Your task to perform on an android device: Open location settings Image 0: 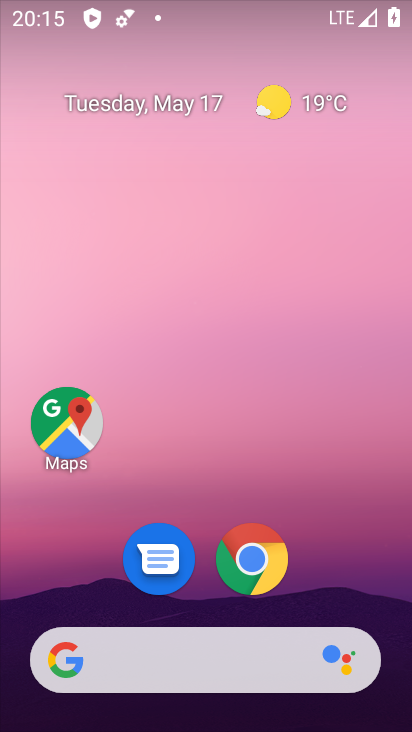
Step 0: drag from (231, 606) to (299, 229)
Your task to perform on an android device: Open location settings Image 1: 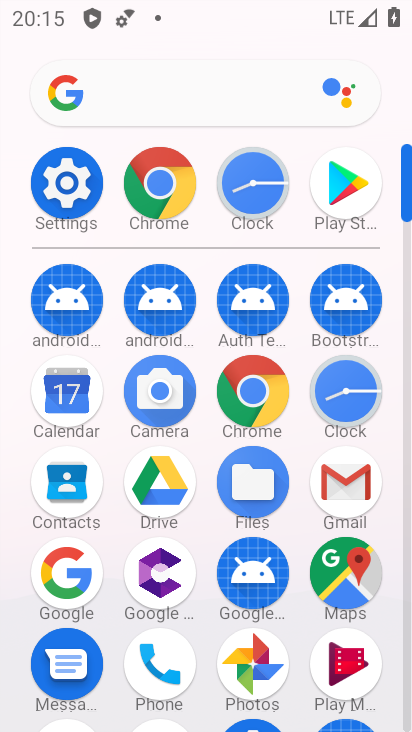
Step 1: click (55, 190)
Your task to perform on an android device: Open location settings Image 2: 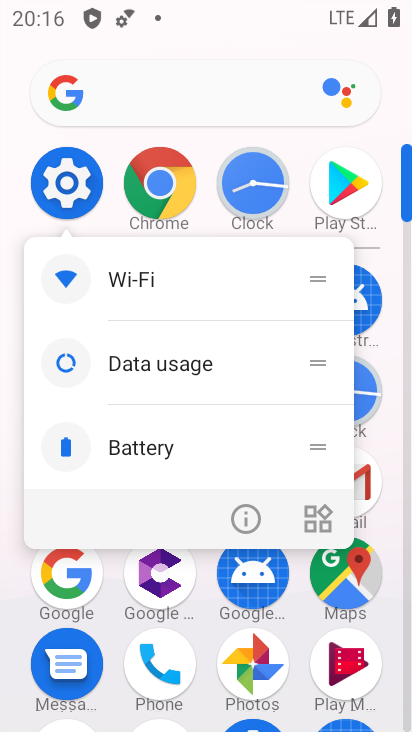
Step 2: click (253, 509)
Your task to perform on an android device: Open location settings Image 3: 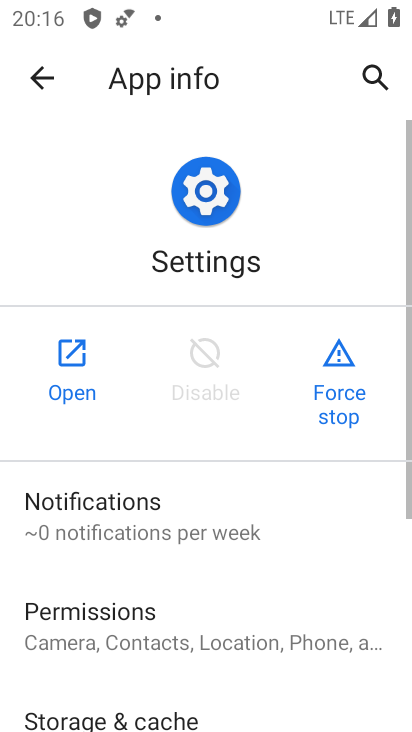
Step 3: drag from (235, 683) to (281, 264)
Your task to perform on an android device: Open location settings Image 4: 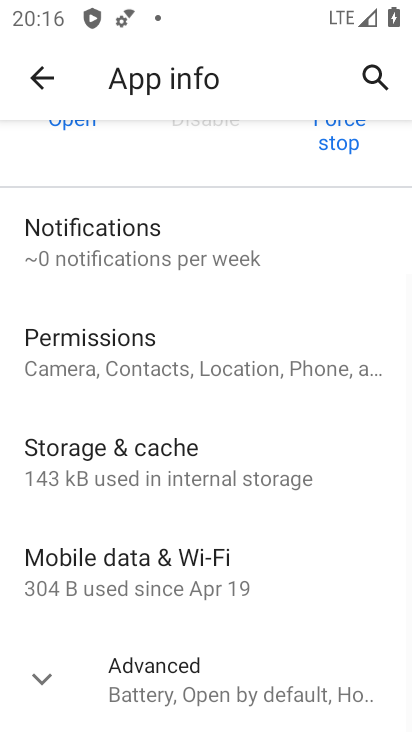
Step 4: drag from (240, 239) to (245, 656)
Your task to perform on an android device: Open location settings Image 5: 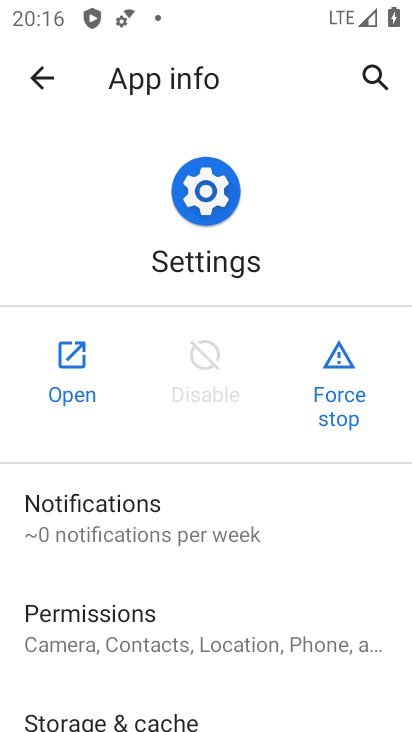
Step 5: click (68, 376)
Your task to perform on an android device: Open location settings Image 6: 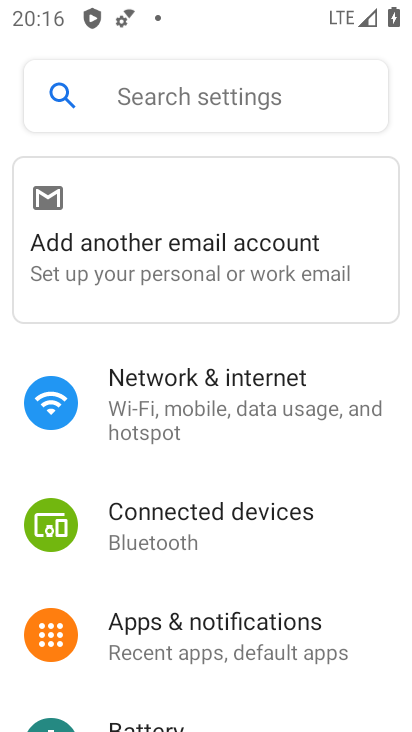
Step 6: drag from (214, 617) to (305, 137)
Your task to perform on an android device: Open location settings Image 7: 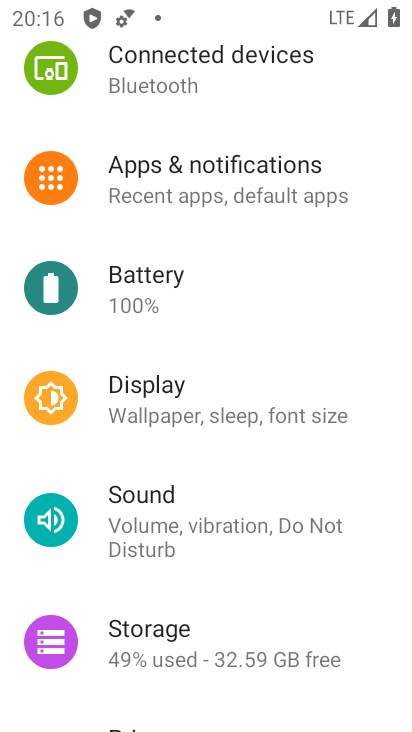
Step 7: drag from (171, 509) to (256, 170)
Your task to perform on an android device: Open location settings Image 8: 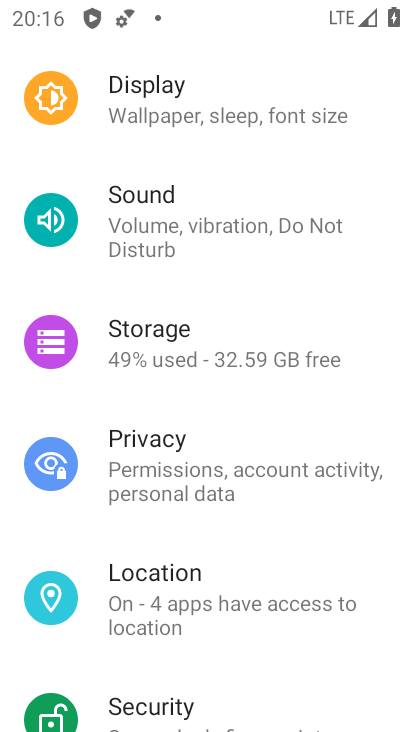
Step 8: click (169, 570)
Your task to perform on an android device: Open location settings Image 9: 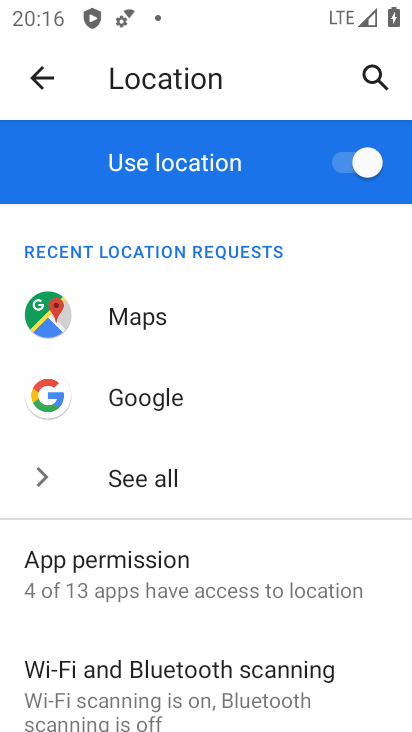
Step 9: drag from (210, 604) to (281, 254)
Your task to perform on an android device: Open location settings Image 10: 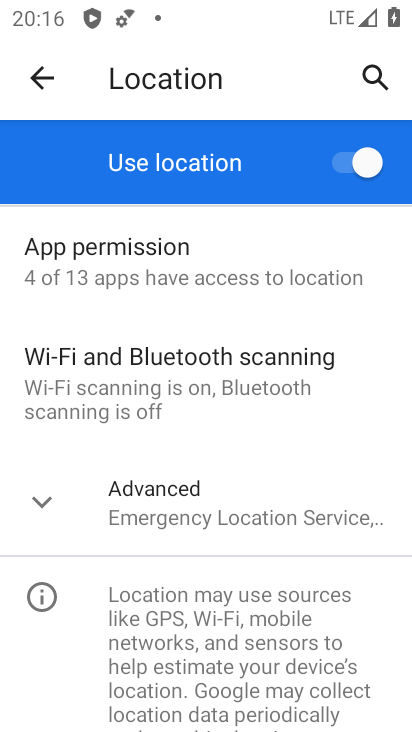
Step 10: click (189, 502)
Your task to perform on an android device: Open location settings Image 11: 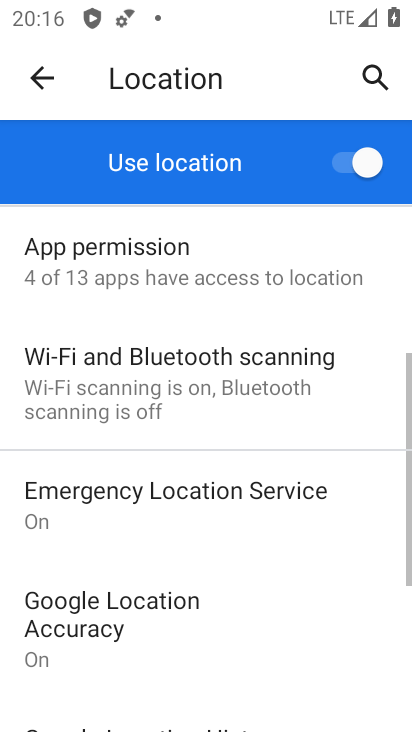
Step 11: task complete